Your task to perform on an android device: Open Android settings Image 0: 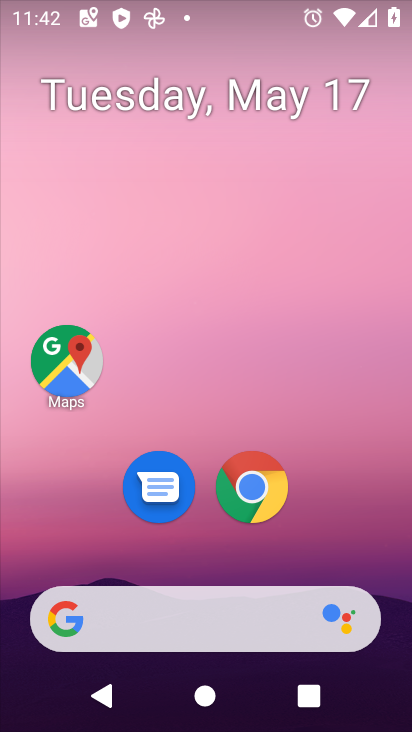
Step 0: drag from (347, 514) to (309, 51)
Your task to perform on an android device: Open Android settings Image 1: 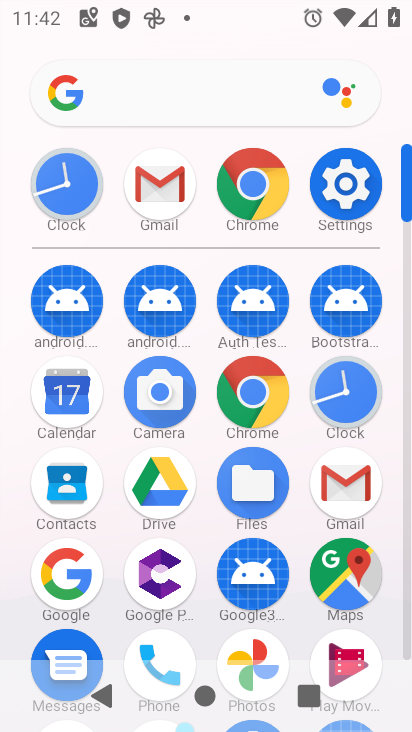
Step 1: click (331, 179)
Your task to perform on an android device: Open Android settings Image 2: 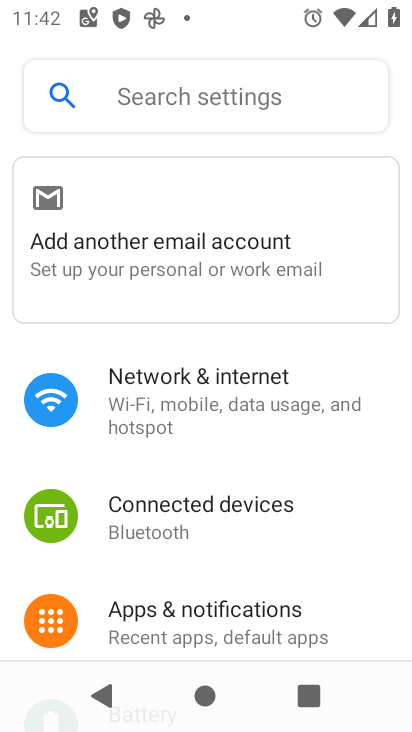
Step 2: drag from (222, 603) to (267, 2)
Your task to perform on an android device: Open Android settings Image 3: 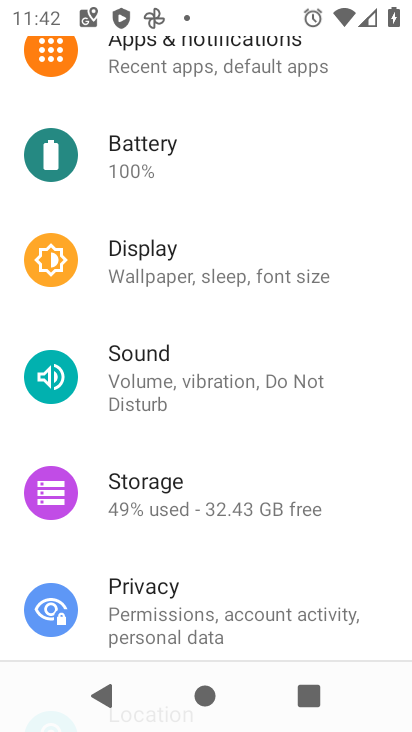
Step 3: drag from (251, 297) to (263, 121)
Your task to perform on an android device: Open Android settings Image 4: 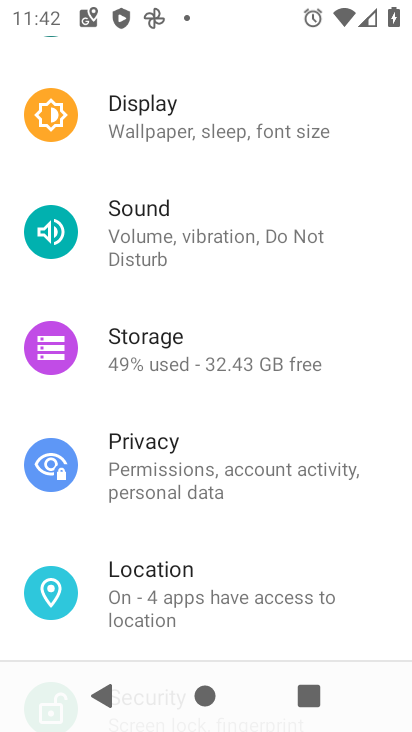
Step 4: drag from (253, 499) to (226, 277)
Your task to perform on an android device: Open Android settings Image 5: 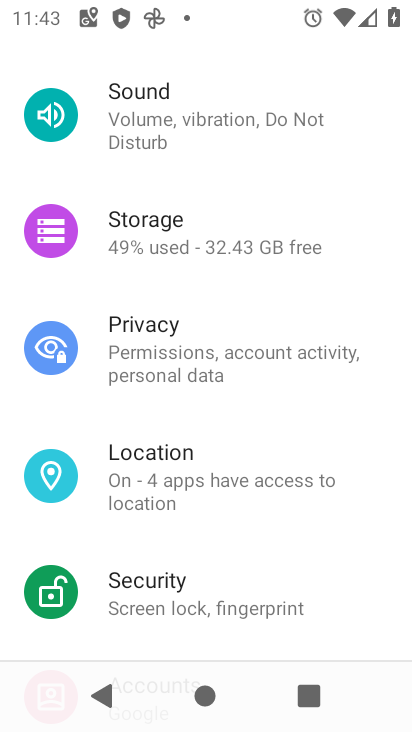
Step 5: drag from (208, 607) to (250, 233)
Your task to perform on an android device: Open Android settings Image 6: 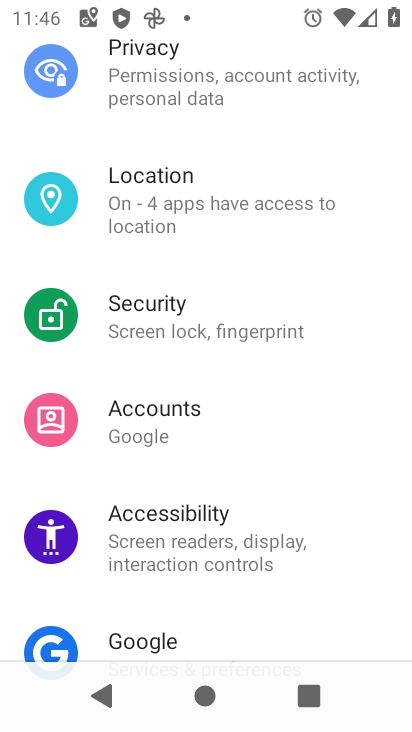
Step 6: drag from (241, 518) to (228, 196)
Your task to perform on an android device: Open Android settings Image 7: 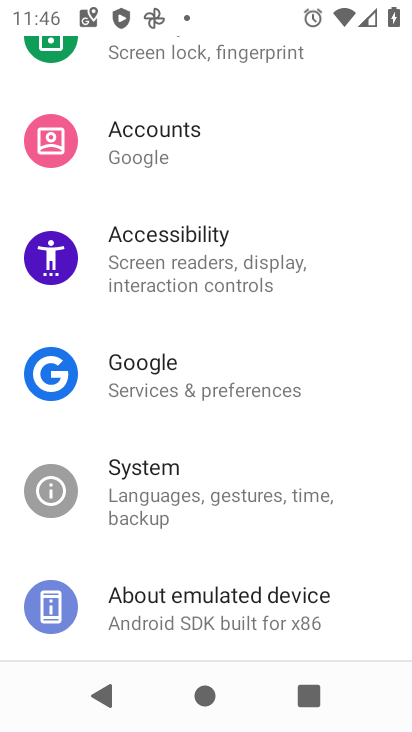
Step 7: click (228, 196)
Your task to perform on an android device: Open Android settings Image 8: 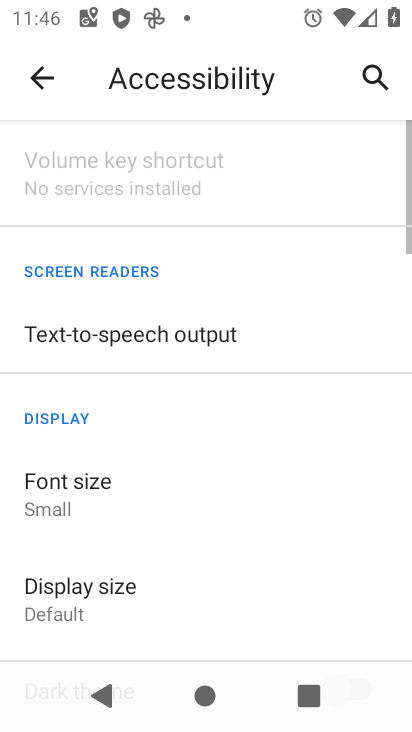
Step 8: drag from (228, 533) to (215, 445)
Your task to perform on an android device: Open Android settings Image 9: 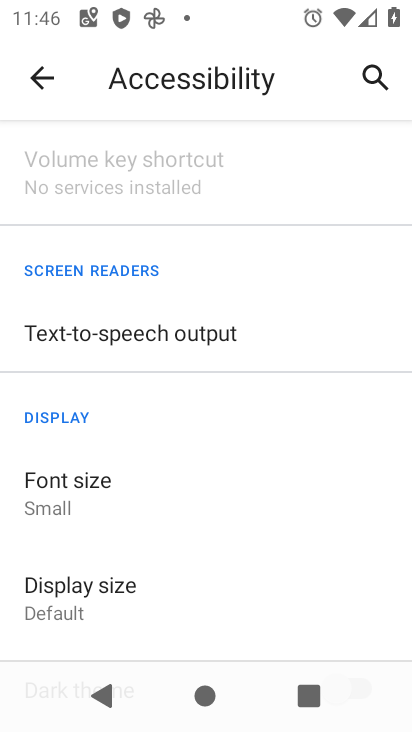
Step 9: click (40, 73)
Your task to perform on an android device: Open Android settings Image 10: 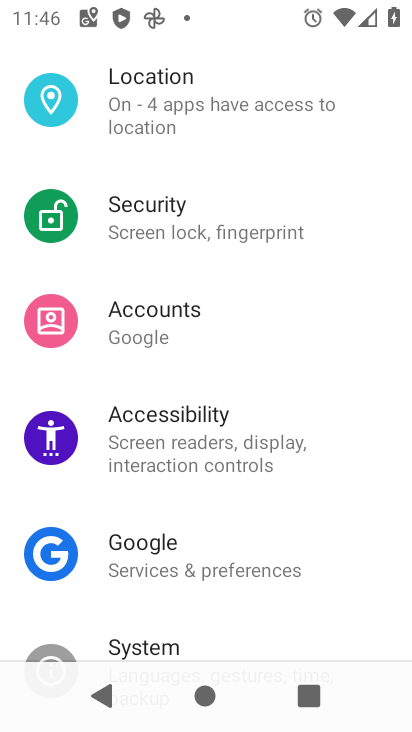
Step 10: drag from (228, 583) to (182, 168)
Your task to perform on an android device: Open Android settings Image 11: 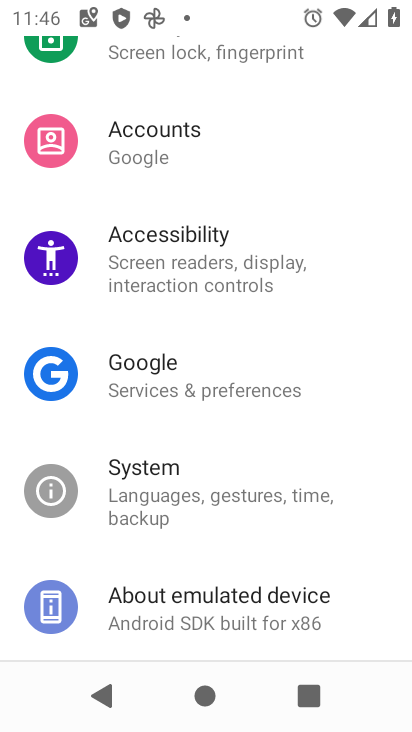
Step 11: drag from (192, 535) to (192, 420)
Your task to perform on an android device: Open Android settings Image 12: 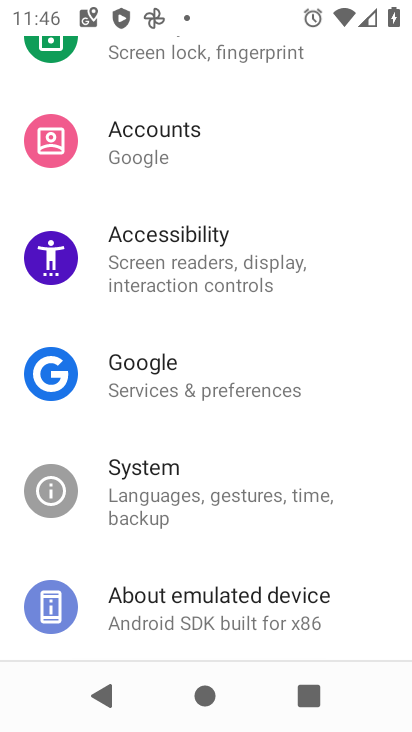
Step 12: click (214, 591)
Your task to perform on an android device: Open Android settings Image 13: 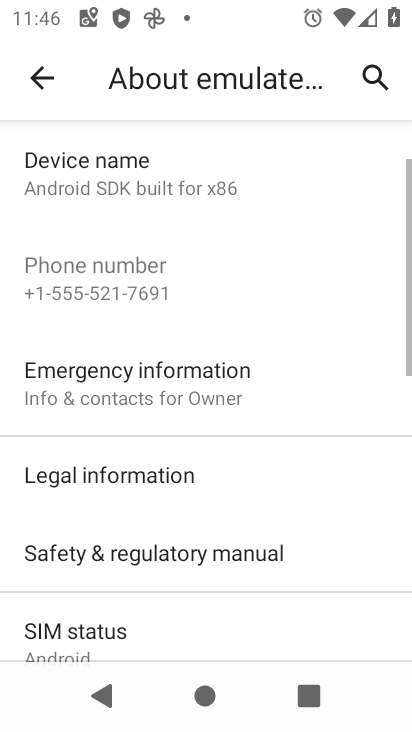
Step 13: drag from (215, 631) to (219, 319)
Your task to perform on an android device: Open Android settings Image 14: 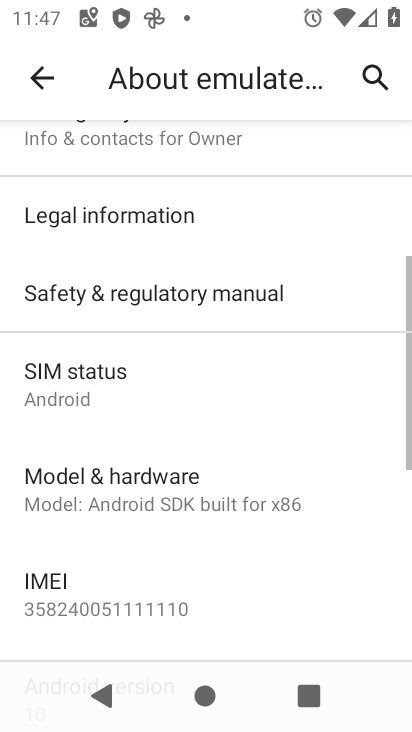
Step 14: drag from (160, 562) to (217, 142)
Your task to perform on an android device: Open Android settings Image 15: 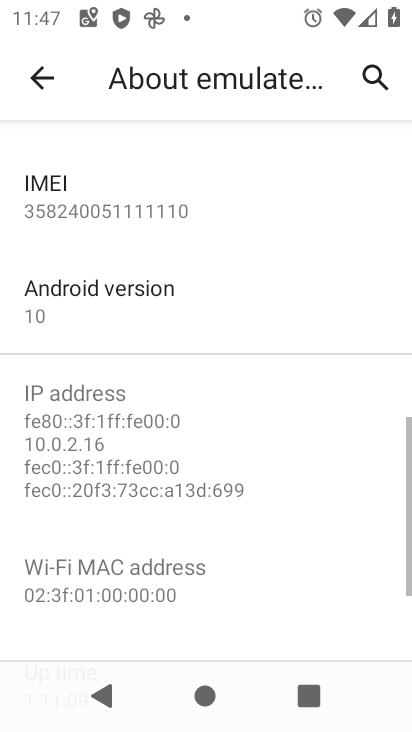
Step 15: click (203, 333)
Your task to perform on an android device: Open Android settings Image 16: 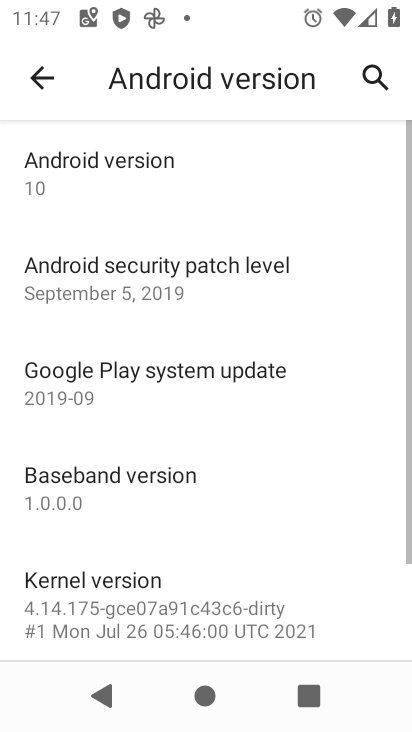
Step 16: task complete